Your task to perform on an android device: move a message to another label in the gmail app Image 0: 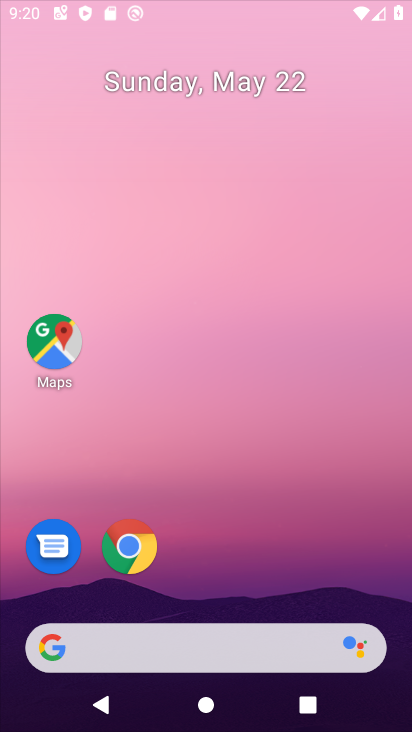
Step 0: click (182, 74)
Your task to perform on an android device: move a message to another label in the gmail app Image 1: 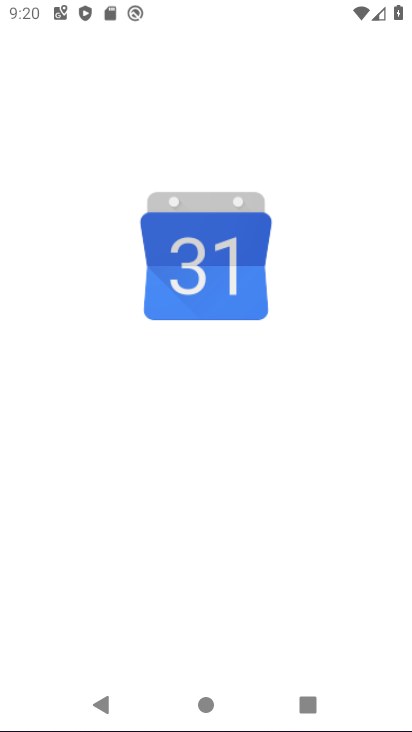
Step 1: drag from (199, 597) to (223, 82)
Your task to perform on an android device: move a message to another label in the gmail app Image 2: 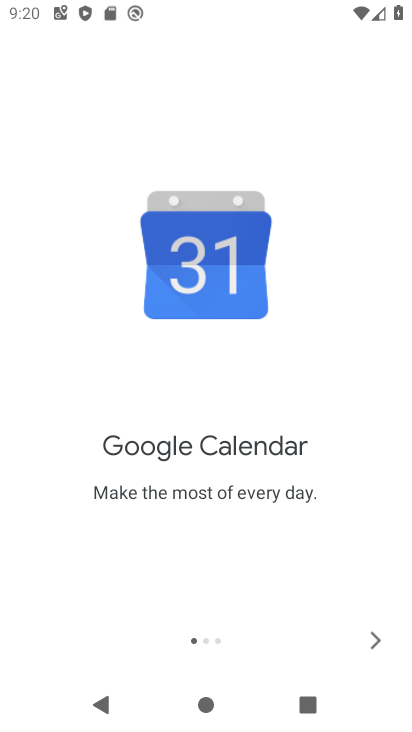
Step 2: press home button
Your task to perform on an android device: move a message to another label in the gmail app Image 3: 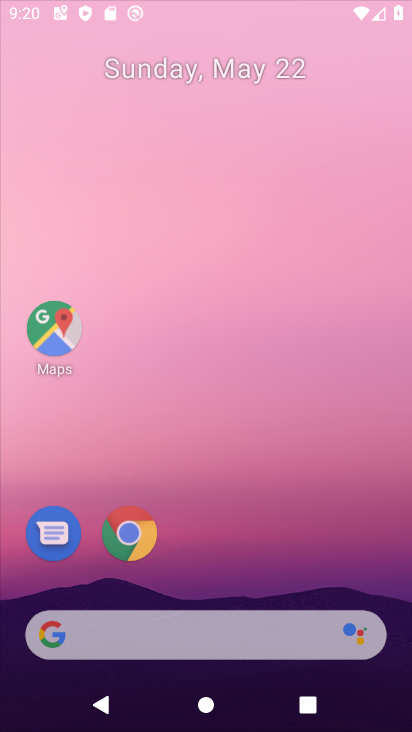
Step 3: drag from (121, 605) to (251, 158)
Your task to perform on an android device: move a message to another label in the gmail app Image 4: 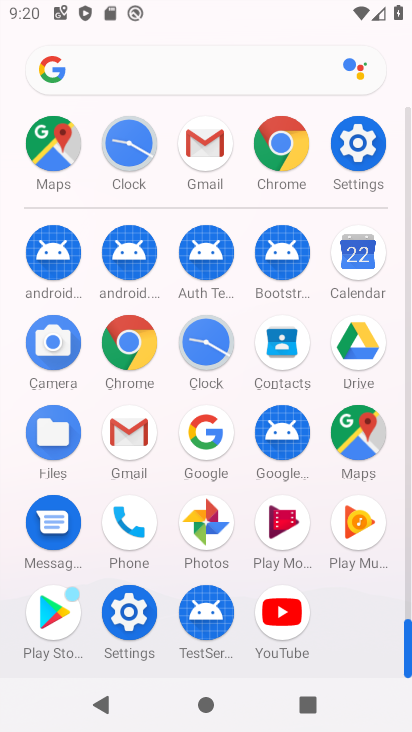
Step 4: click (121, 437)
Your task to perform on an android device: move a message to another label in the gmail app Image 5: 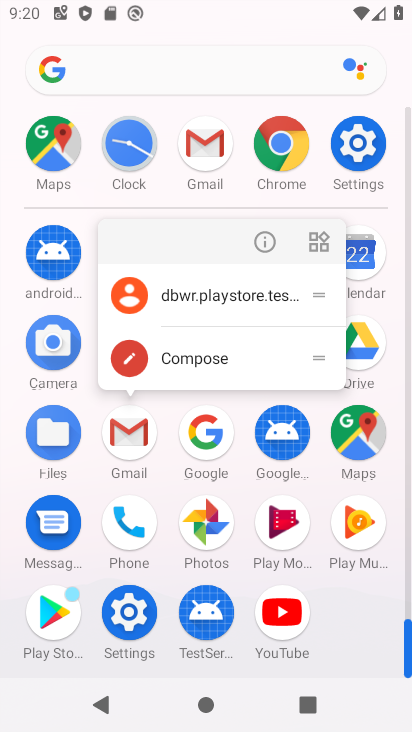
Step 5: click (260, 239)
Your task to perform on an android device: move a message to another label in the gmail app Image 6: 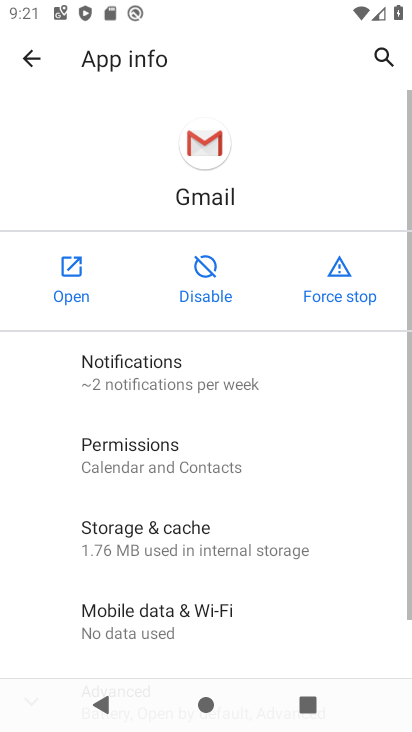
Step 6: click (50, 266)
Your task to perform on an android device: move a message to another label in the gmail app Image 7: 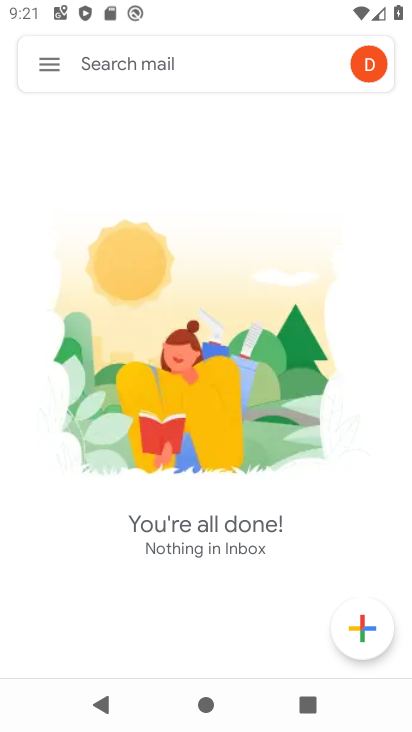
Step 7: click (46, 66)
Your task to perform on an android device: move a message to another label in the gmail app Image 8: 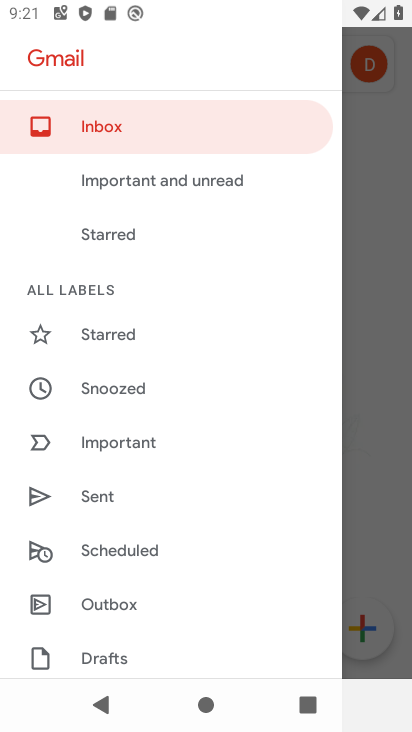
Step 8: click (356, 267)
Your task to perform on an android device: move a message to another label in the gmail app Image 9: 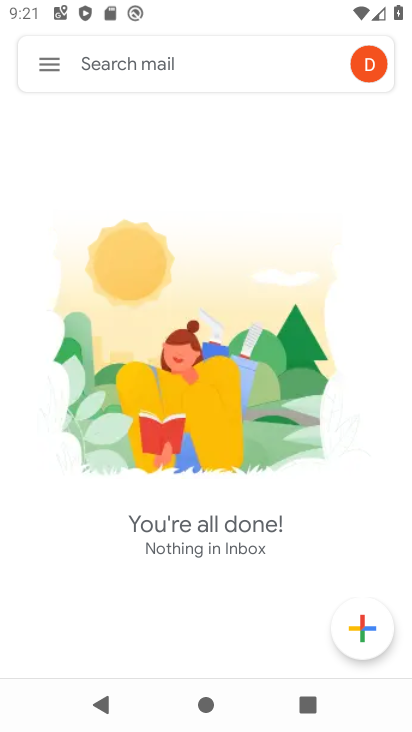
Step 9: task complete